Your task to perform on an android device: search for starred emails in the gmail app Image 0: 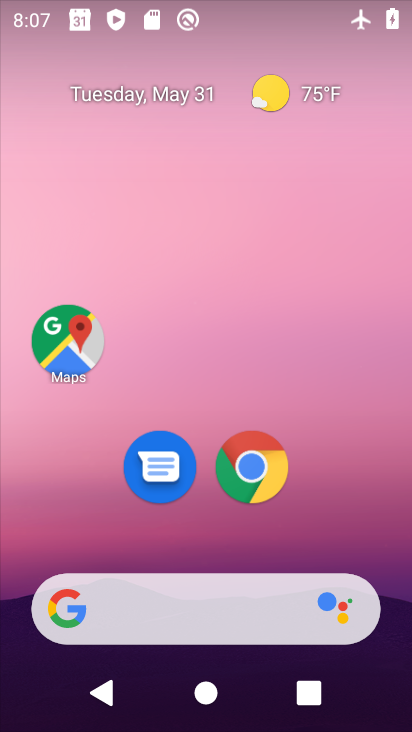
Step 0: drag from (161, 541) to (234, 187)
Your task to perform on an android device: search for starred emails in the gmail app Image 1: 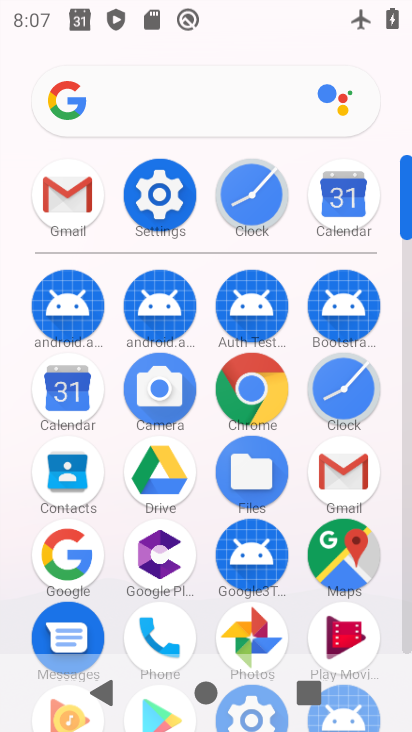
Step 1: click (336, 484)
Your task to perform on an android device: search for starred emails in the gmail app Image 2: 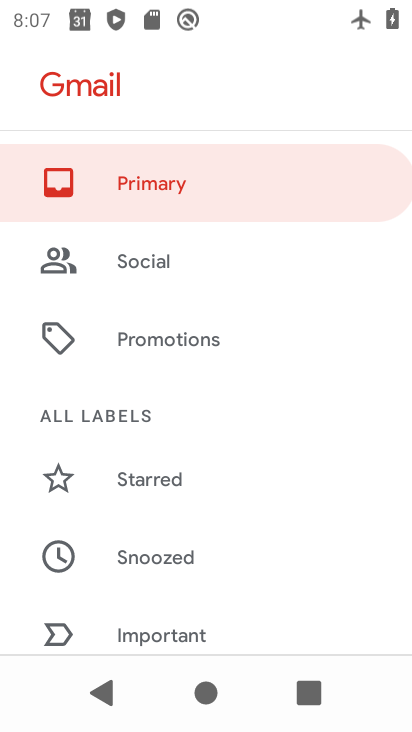
Step 2: click (137, 484)
Your task to perform on an android device: search for starred emails in the gmail app Image 3: 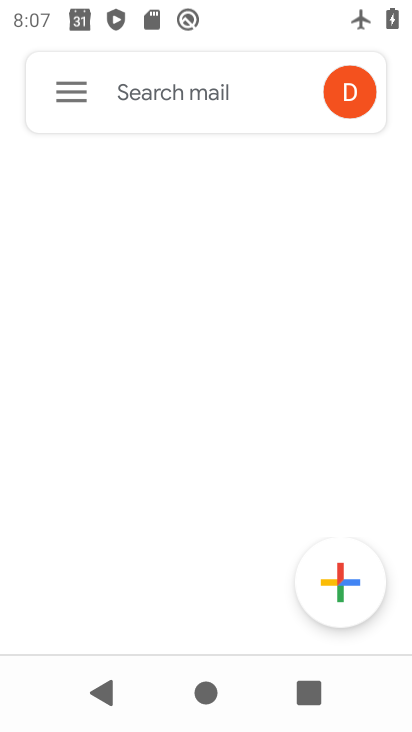
Step 3: task complete